Your task to perform on an android device: Open Maps and search for coffee Image 0: 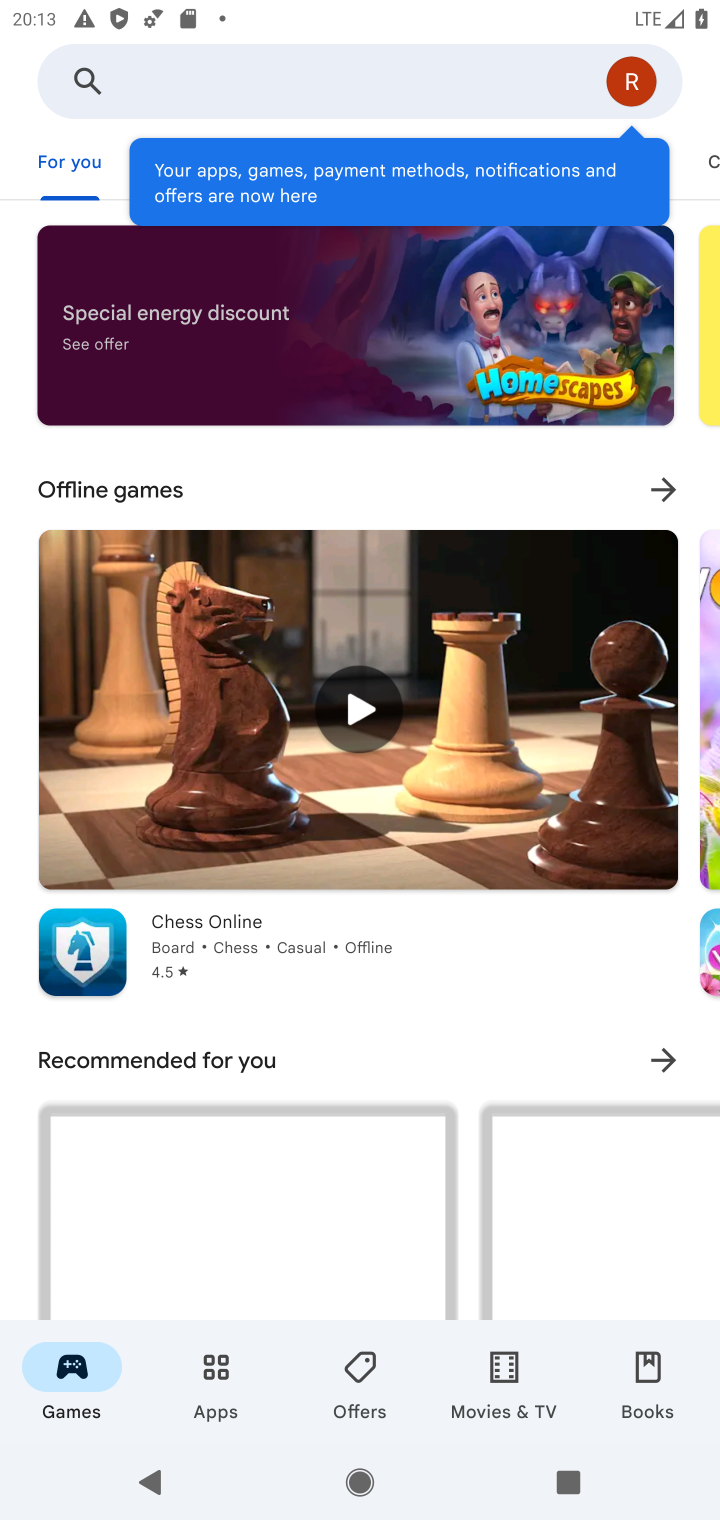
Step 0: press home button
Your task to perform on an android device: Open Maps and search for coffee Image 1: 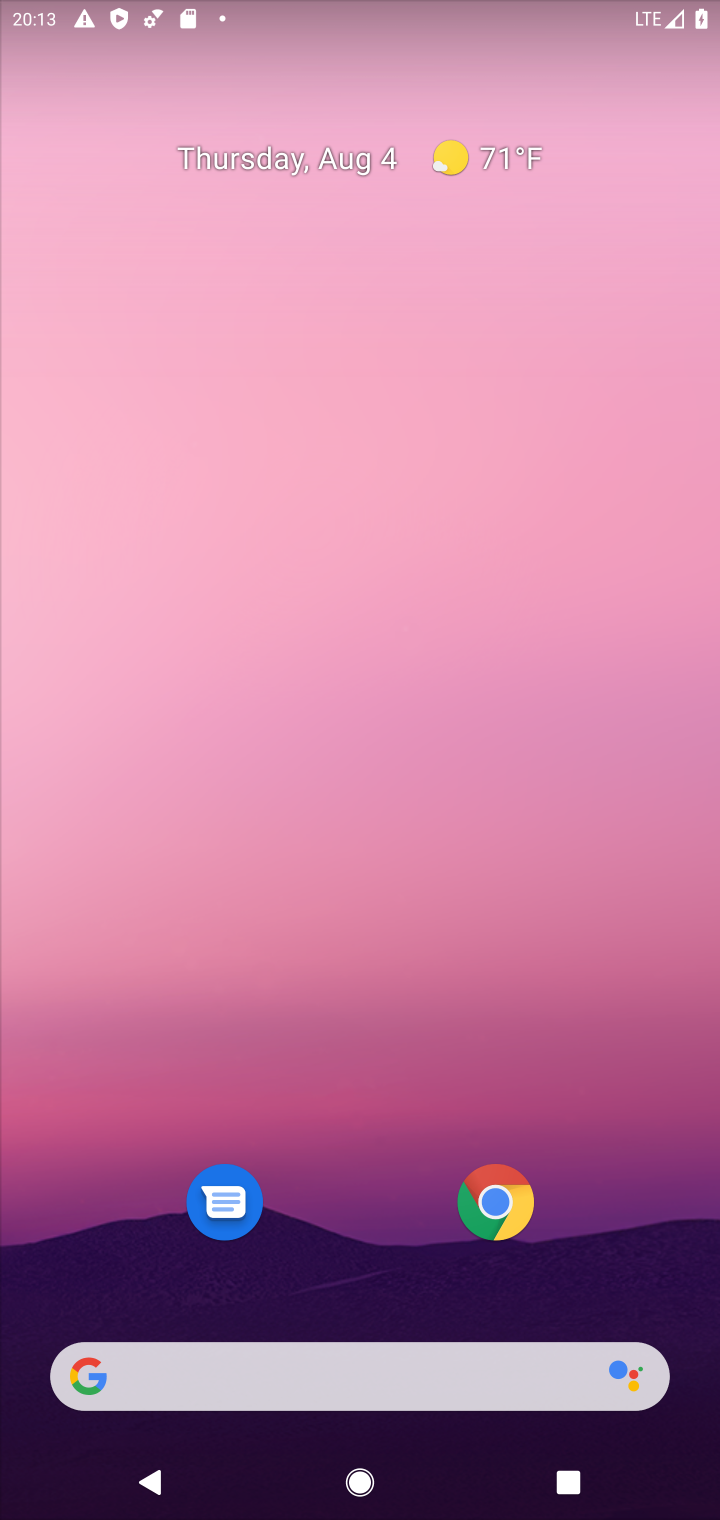
Step 1: drag from (301, 1240) to (287, 348)
Your task to perform on an android device: Open Maps and search for coffee Image 2: 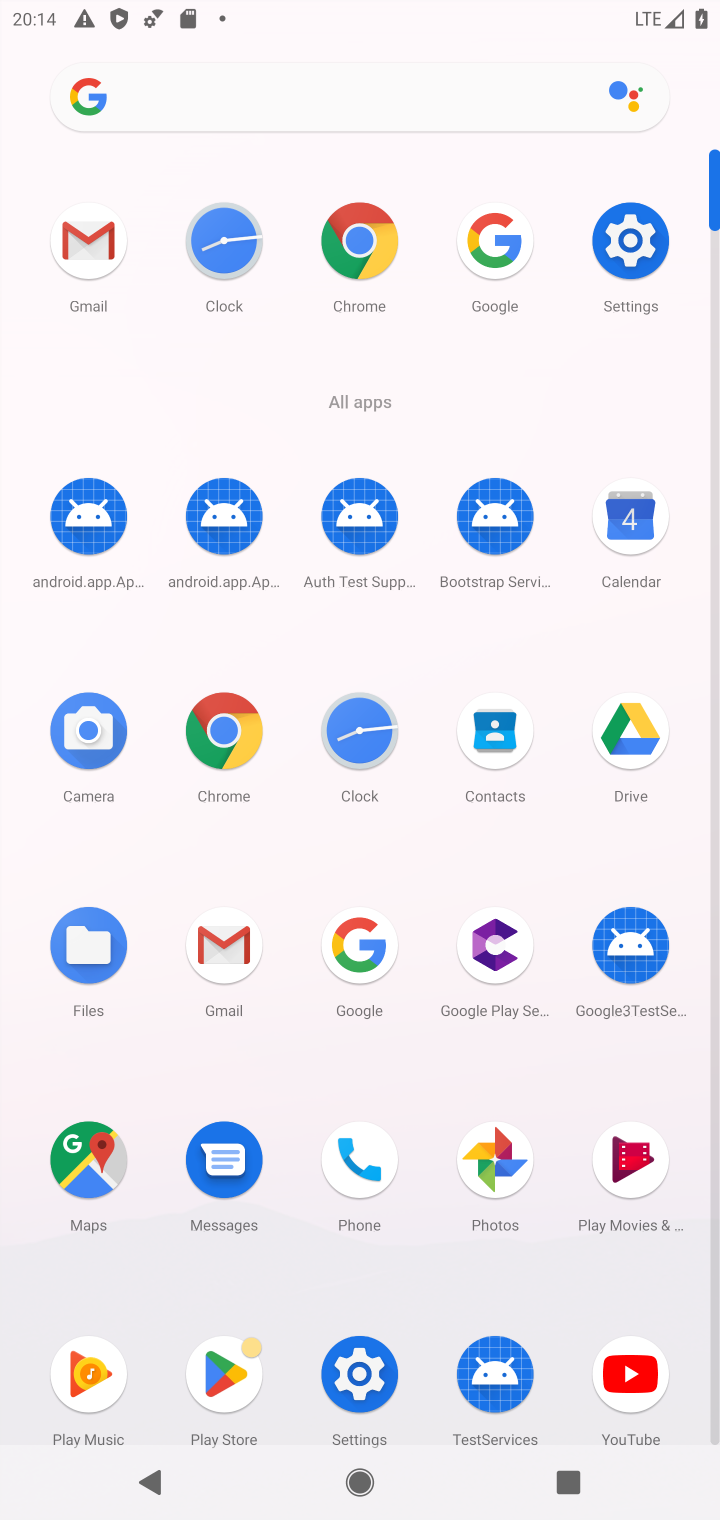
Step 2: click (48, 1180)
Your task to perform on an android device: Open Maps and search for coffee Image 3: 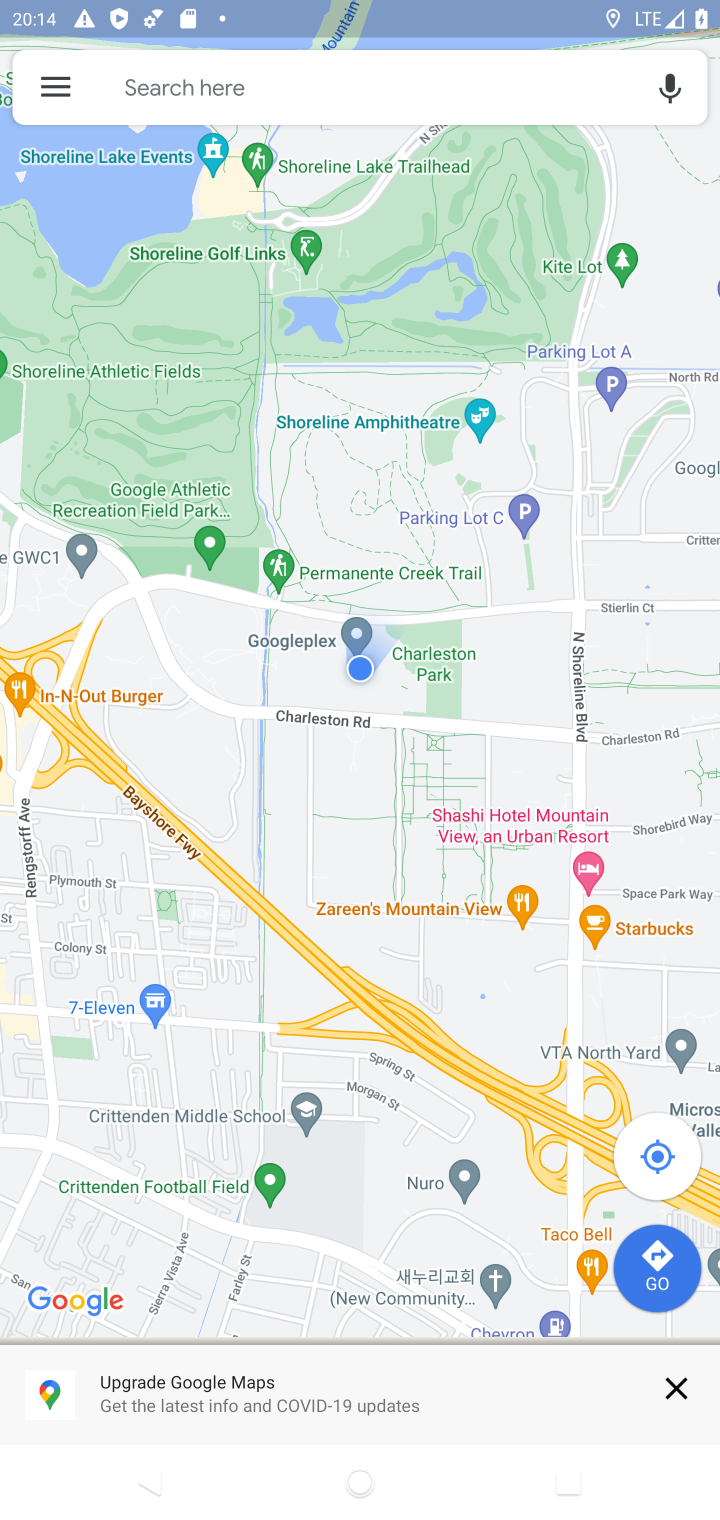
Step 3: click (152, 94)
Your task to perform on an android device: Open Maps and search for coffee Image 4: 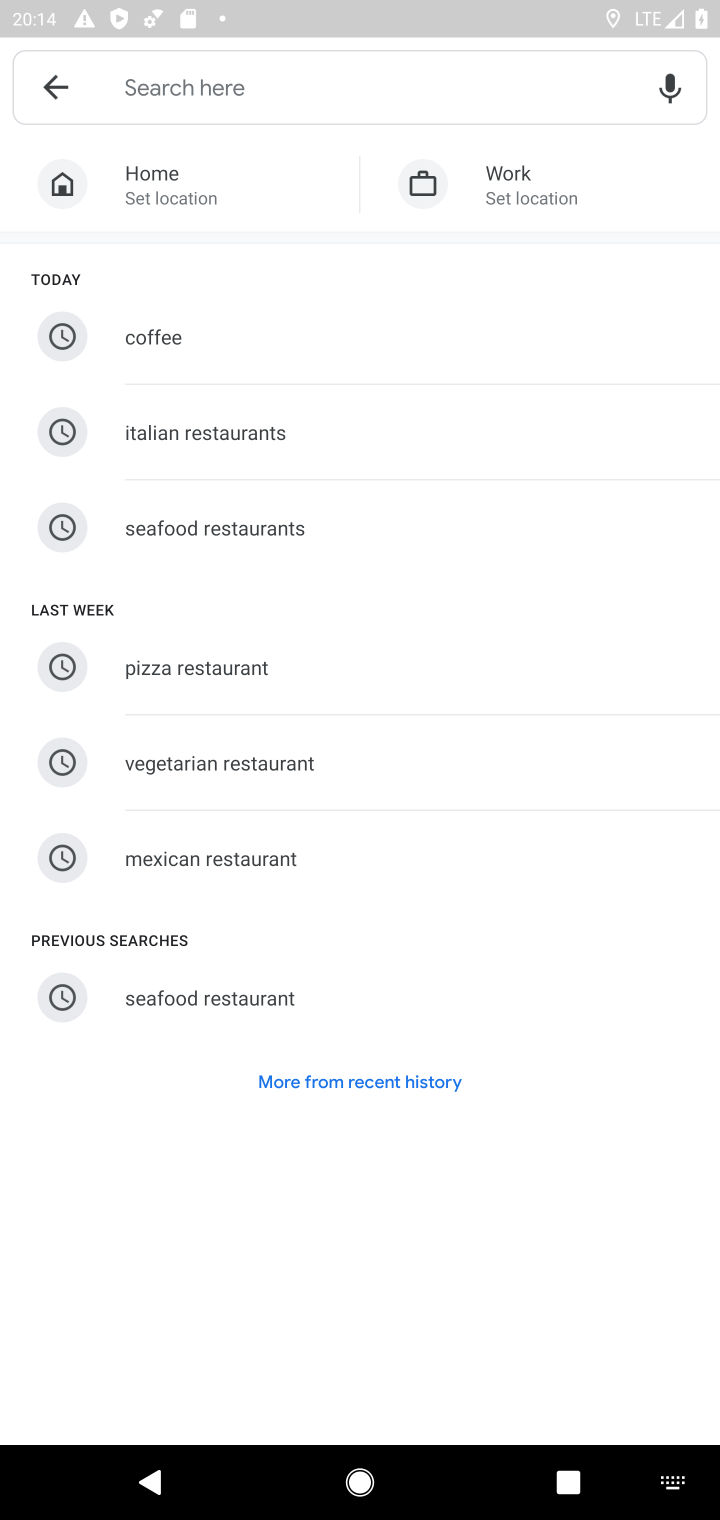
Step 4: type "coffee"
Your task to perform on an android device: Open Maps and search for coffee Image 5: 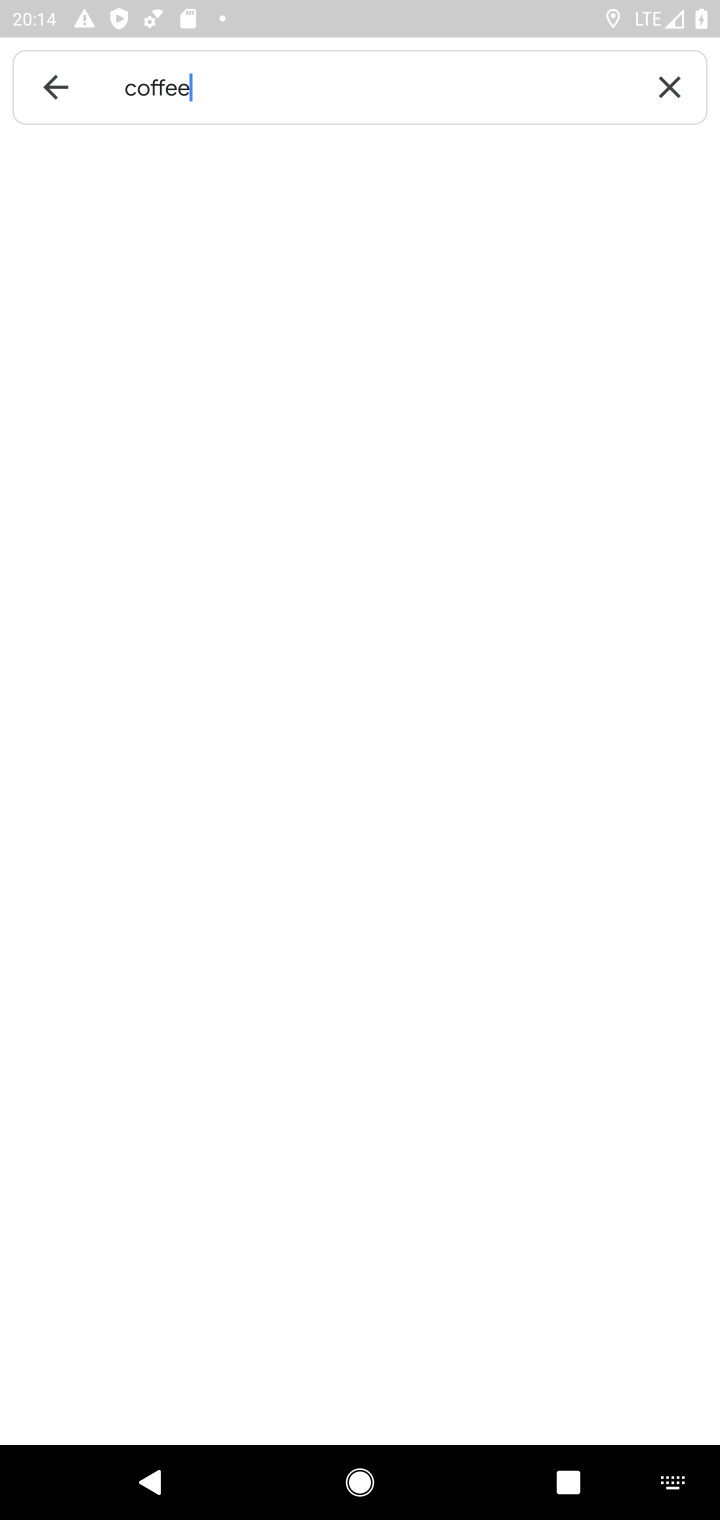
Step 5: type ""
Your task to perform on an android device: Open Maps and search for coffee Image 6: 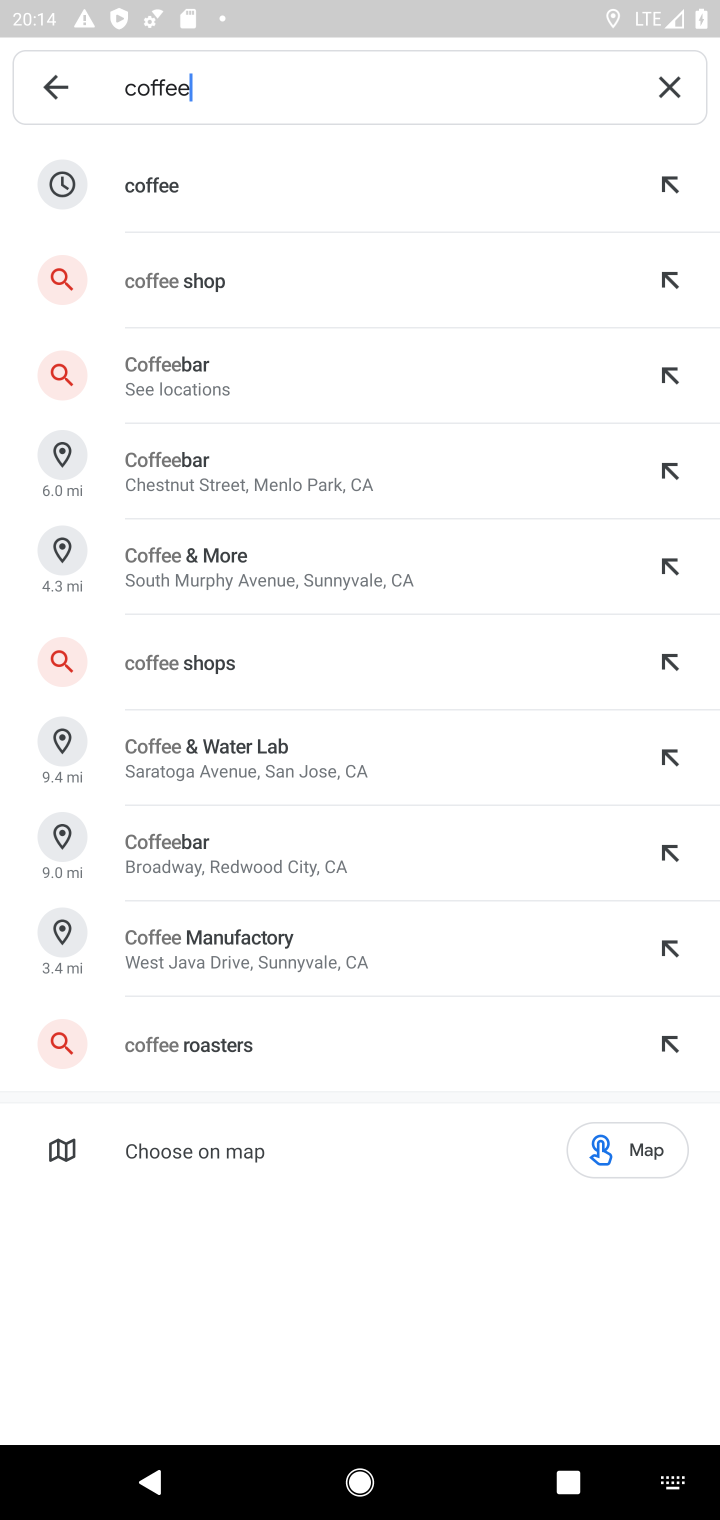
Step 6: click (213, 174)
Your task to perform on an android device: Open Maps and search for coffee Image 7: 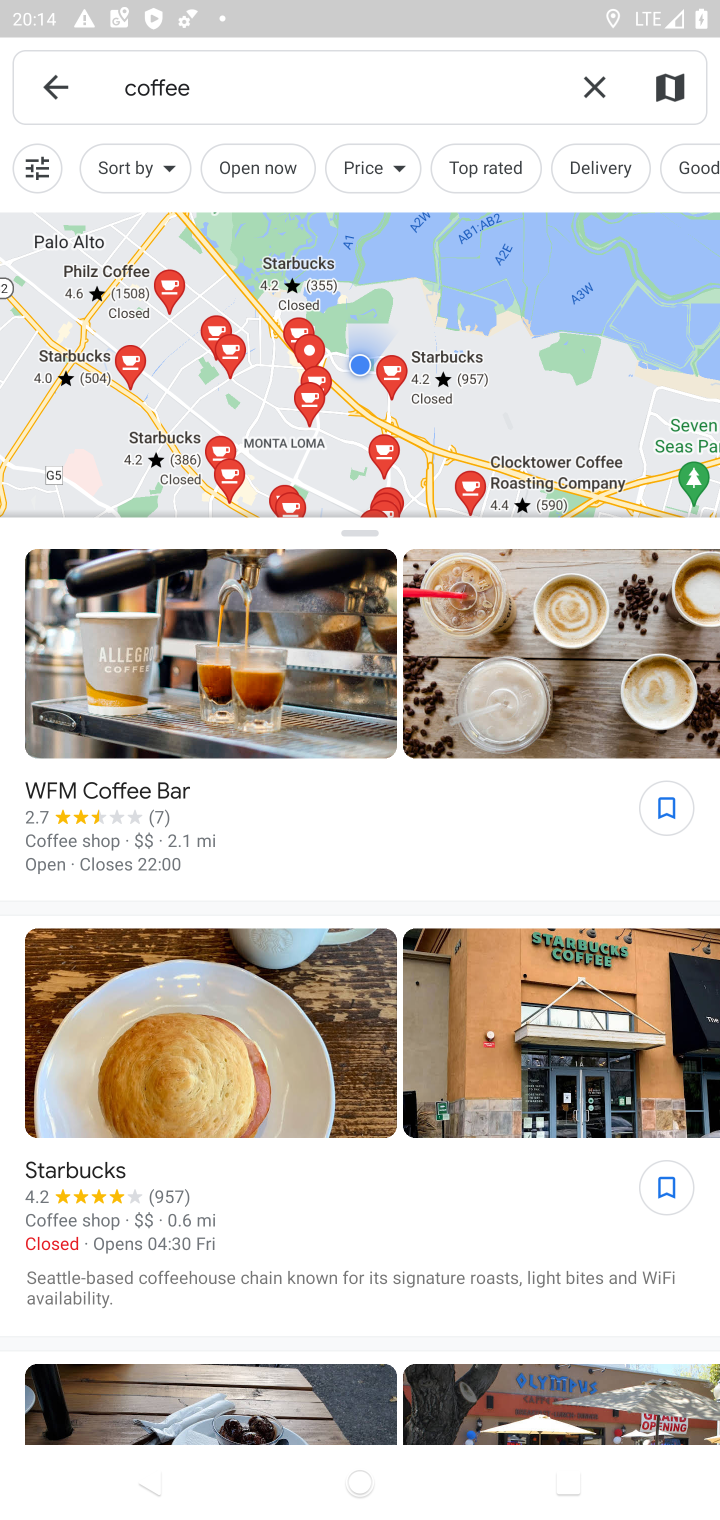
Step 7: task complete